Your task to perform on an android device: see sites visited before in the chrome app Image 0: 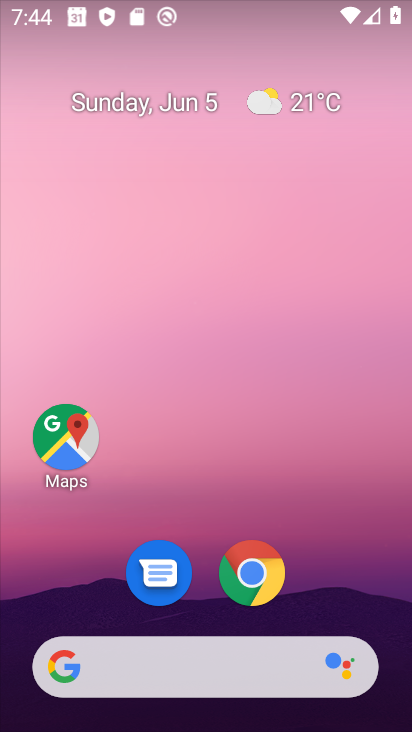
Step 0: drag from (314, 583) to (295, 237)
Your task to perform on an android device: see sites visited before in the chrome app Image 1: 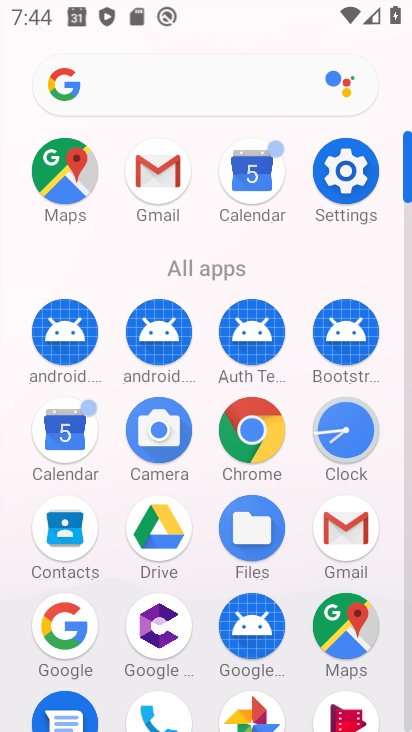
Step 1: click (243, 429)
Your task to perform on an android device: see sites visited before in the chrome app Image 2: 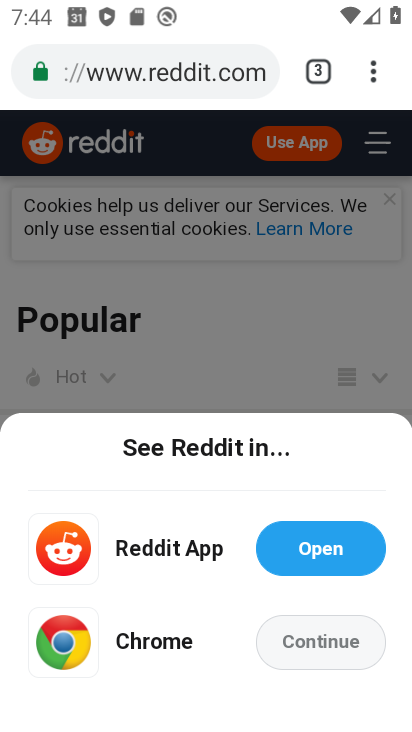
Step 2: click (372, 72)
Your task to perform on an android device: see sites visited before in the chrome app Image 3: 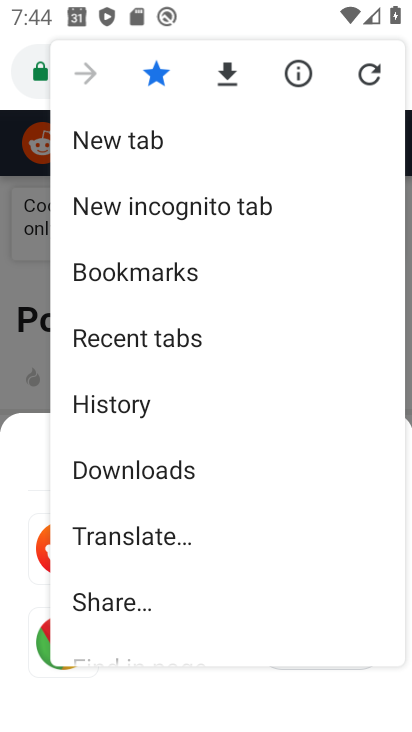
Step 3: click (144, 403)
Your task to perform on an android device: see sites visited before in the chrome app Image 4: 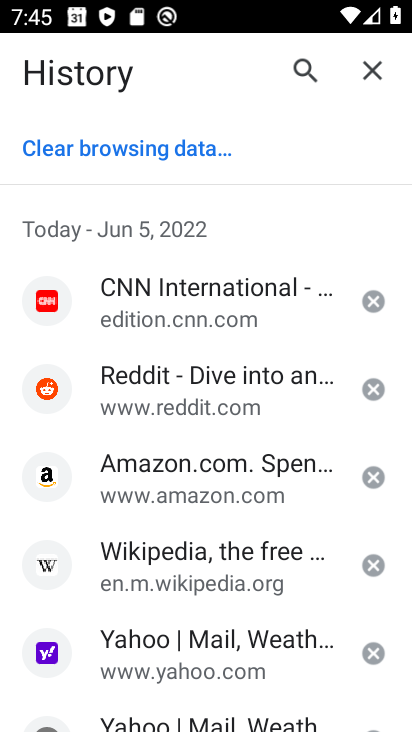
Step 4: task complete